Your task to perform on an android device: Go to Android settings Image 0: 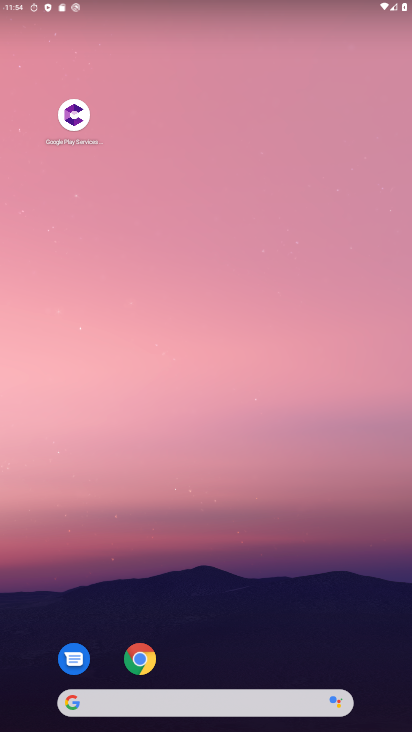
Step 0: drag from (220, 601) to (252, 12)
Your task to perform on an android device: Go to Android settings Image 1: 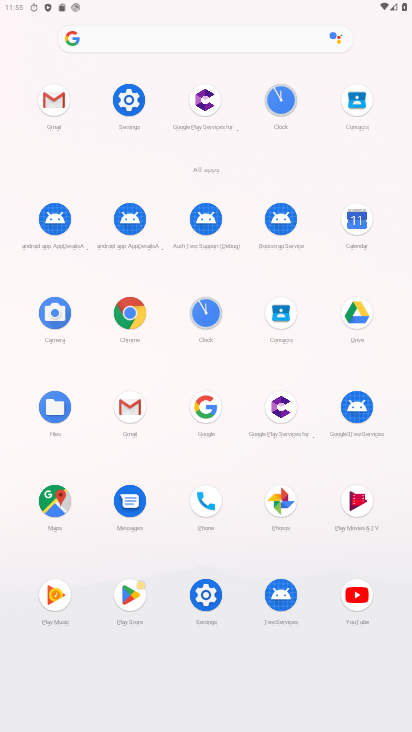
Step 1: click (192, 589)
Your task to perform on an android device: Go to Android settings Image 2: 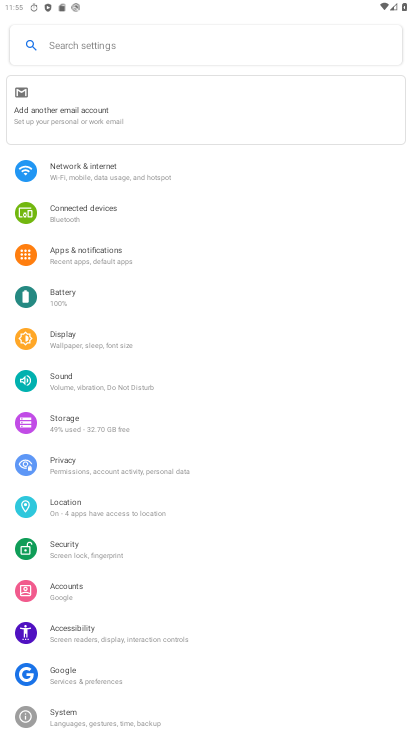
Step 2: drag from (124, 628) to (166, 141)
Your task to perform on an android device: Go to Android settings Image 3: 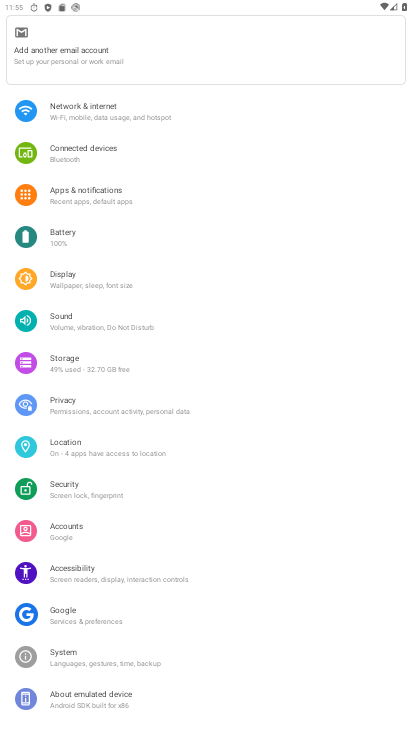
Step 3: click (100, 705)
Your task to perform on an android device: Go to Android settings Image 4: 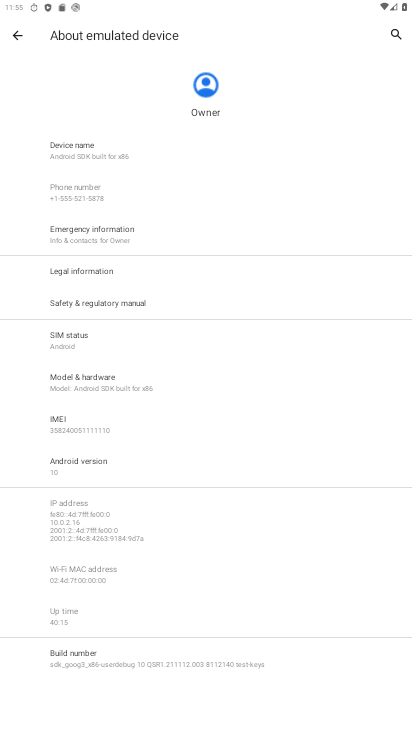
Step 4: click (114, 465)
Your task to perform on an android device: Go to Android settings Image 5: 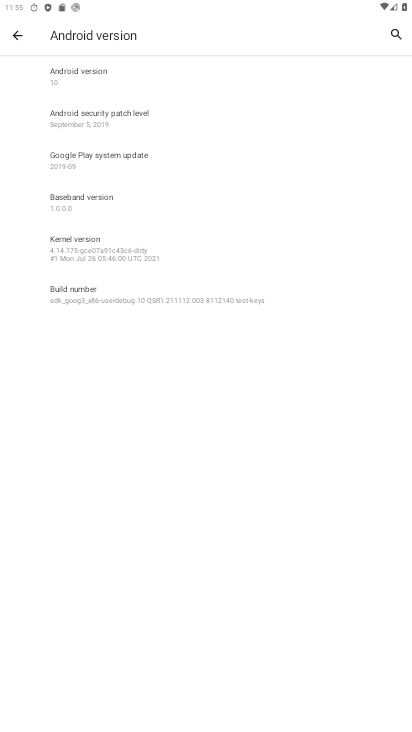
Step 5: task complete